Your task to perform on an android device: Toggle the flashlight Image 0: 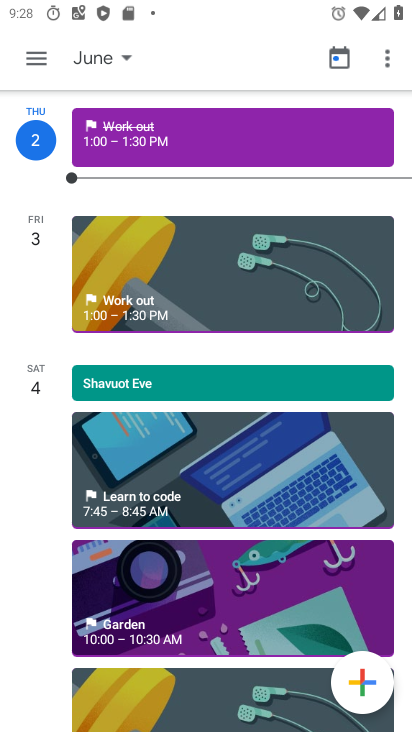
Step 0: press home button
Your task to perform on an android device: Toggle the flashlight Image 1: 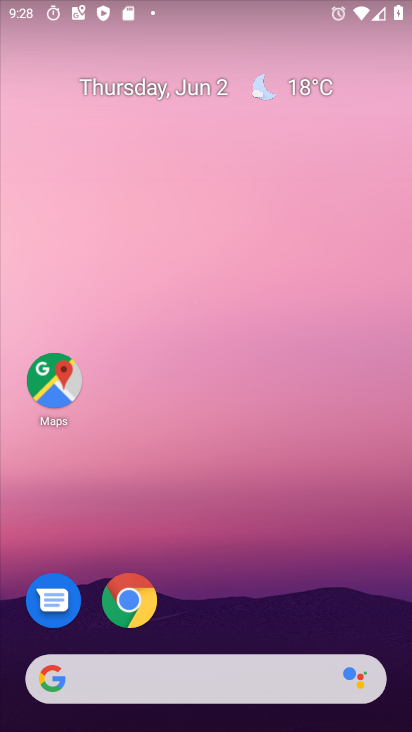
Step 1: drag from (276, 1) to (285, 377)
Your task to perform on an android device: Toggle the flashlight Image 2: 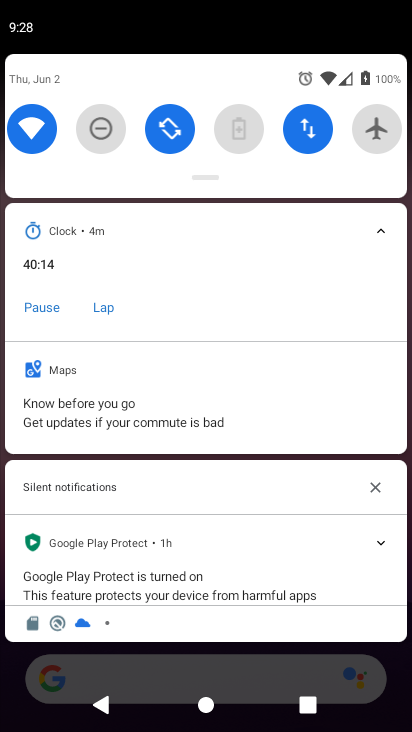
Step 2: drag from (208, 71) to (216, 344)
Your task to perform on an android device: Toggle the flashlight Image 3: 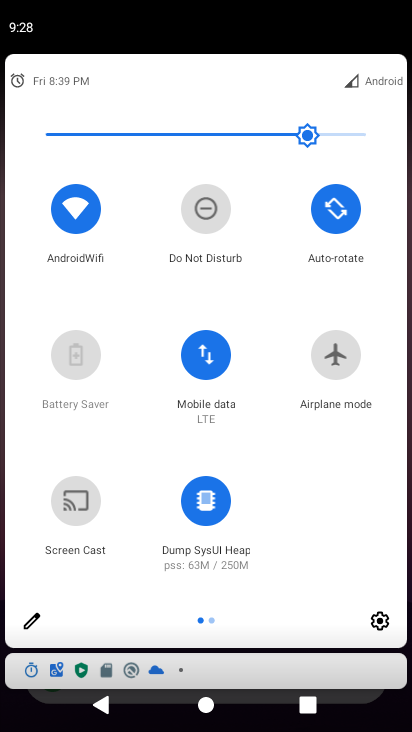
Step 3: click (25, 623)
Your task to perform on an android device: Toggle the flashlight Image 4: 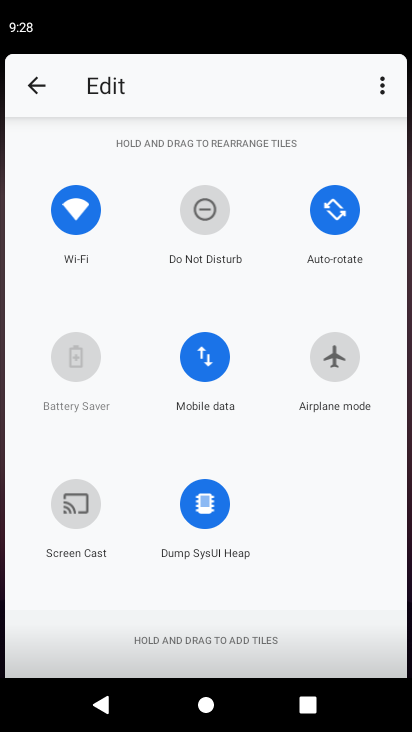
Step 4: task complete